Your task to perform on an android device: turn on sleep mode Image 0: 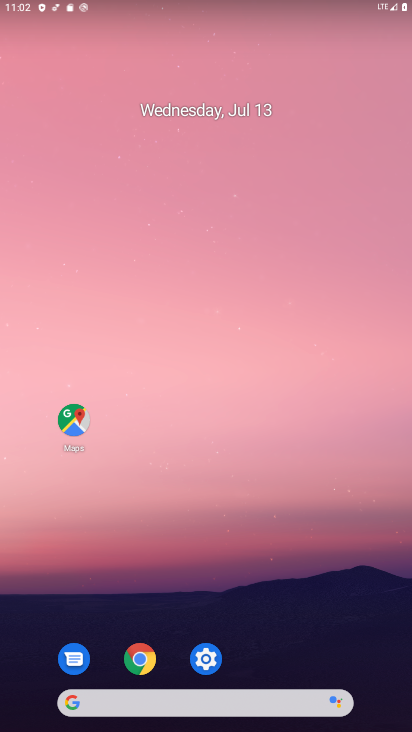
Step 0: drag from (270, 530) to (191, 10)
Your task to perform on an android device: turn on sleep mode Image 1: 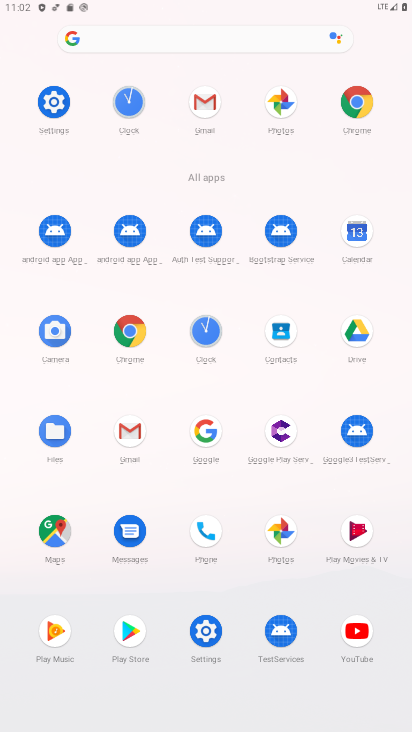
Step 1: click (209, 629)
Your task to perform on an android device: turn on sleep mode Image 2: 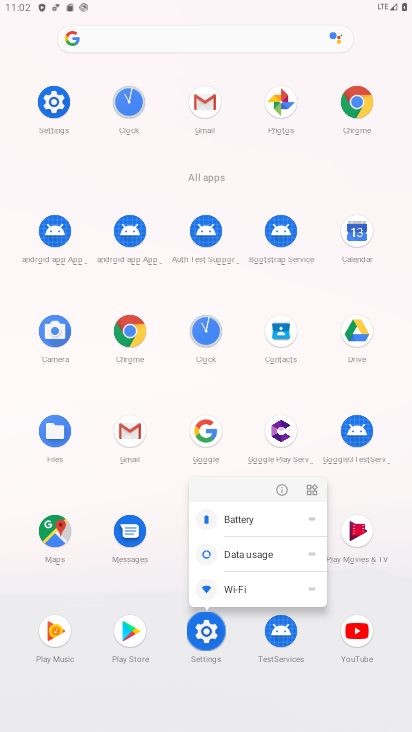
Step 2: click (210, 629)
Your task to perform on an android device: turn on sleep mode Image 3: 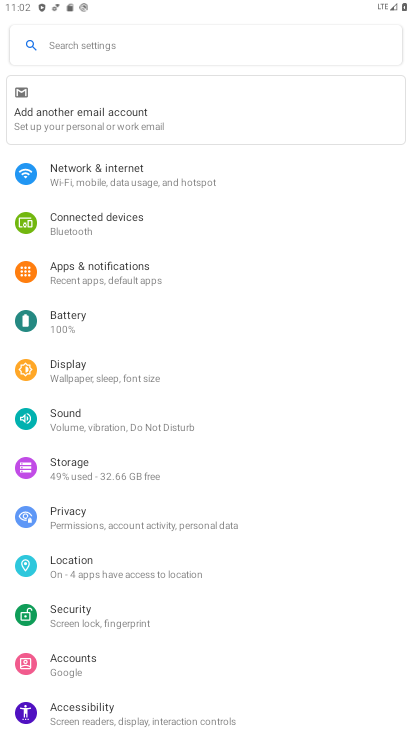
Step 3: click (83, 373)
Your task to perform on an android device: turn on sleep mode Image 4: 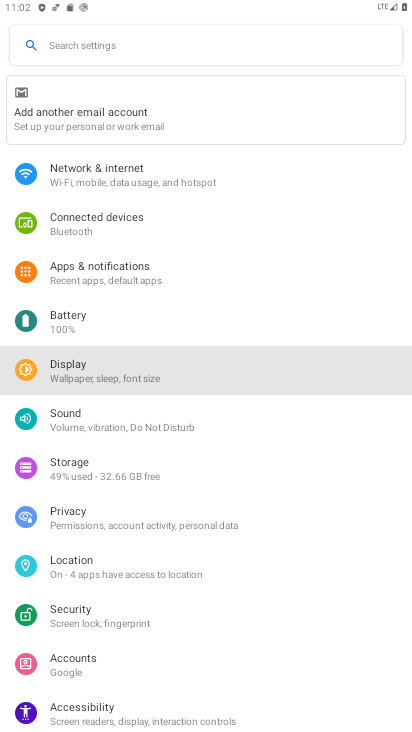
Step 4: click (84, 373)
Your task to perform on an android device: turn on sleep mode Image 5: 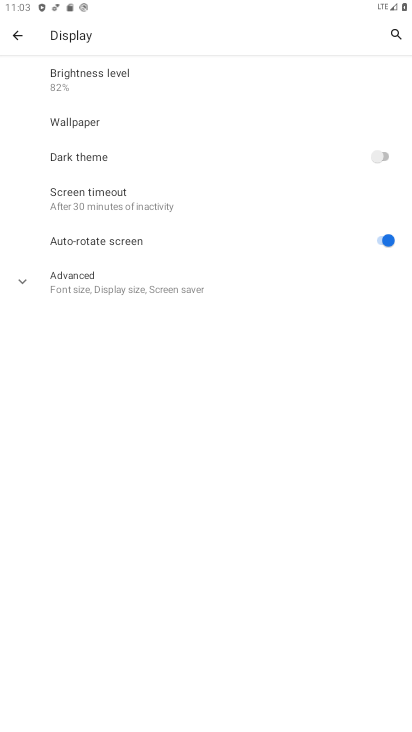
Step 5: click (18, 32)
Your task to perform on an android device: turn on sleep mode Image 6: 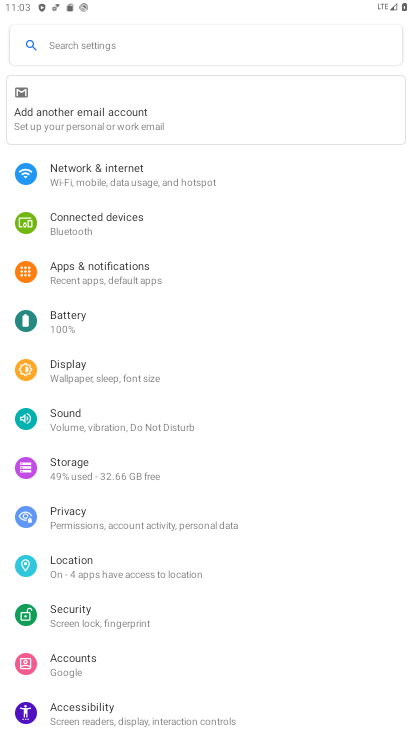
Step 6: click (69, 383)
Your task to perform on an android device: turn on sleep mode Image 7: 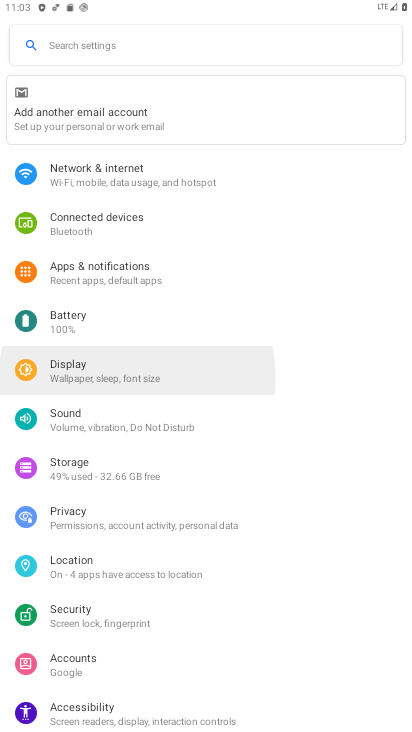
Step 7: click (69, 383)
Your task to perform on an android device: turn on sleep mode Image 8: 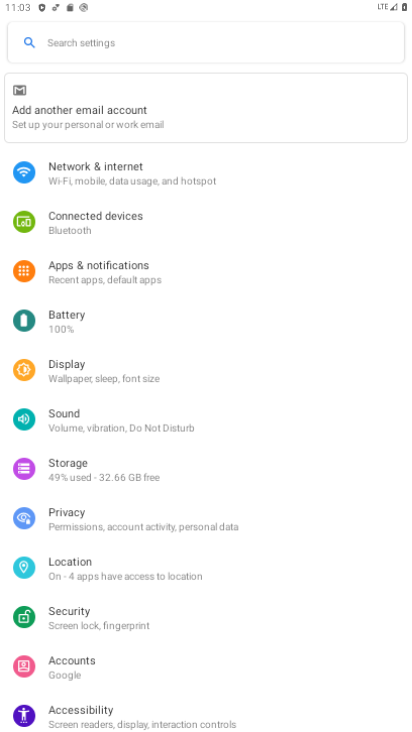
Step 8: click (69, 382)
Your task to perform on an android device: turn on sleep mode Image 9: 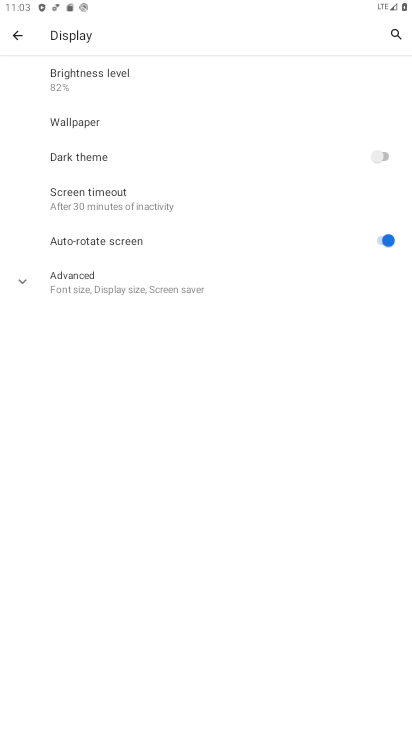
Step 9: click (86, 188)
Your task to perform on an android device: turn on sleep mode Image 10: 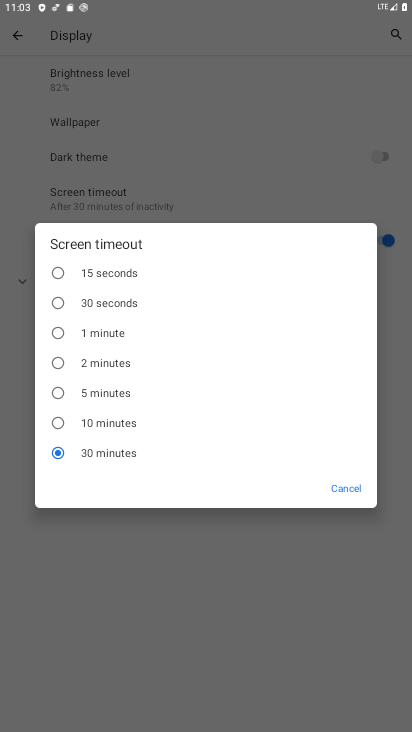
Step 10: task complete